Your task to perform on an android device: Go to sound settings Image 0: 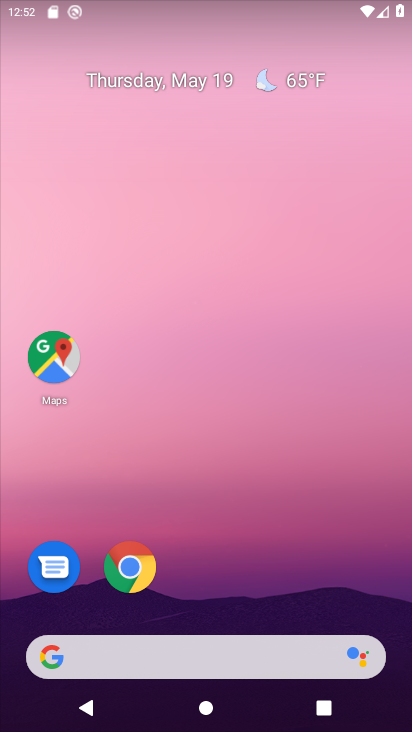
Step 0: drag from (280, 601) to (249, 202)
Your task to perform on an android device: Go to sound settings Image 1: 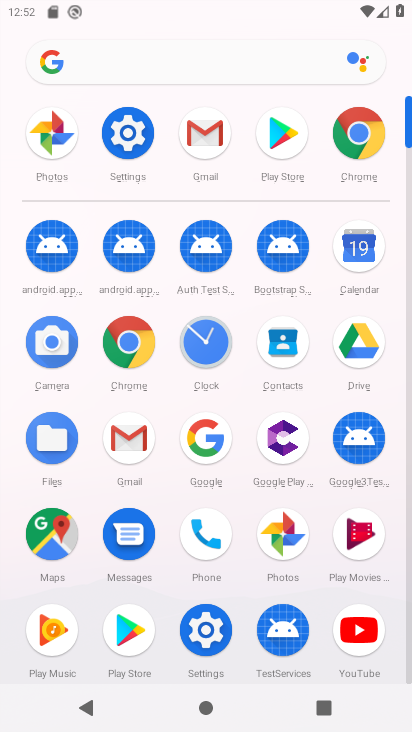
Step 1: click (133, 133)
Your task to perform on an android device: Go to sound settings Image 2: 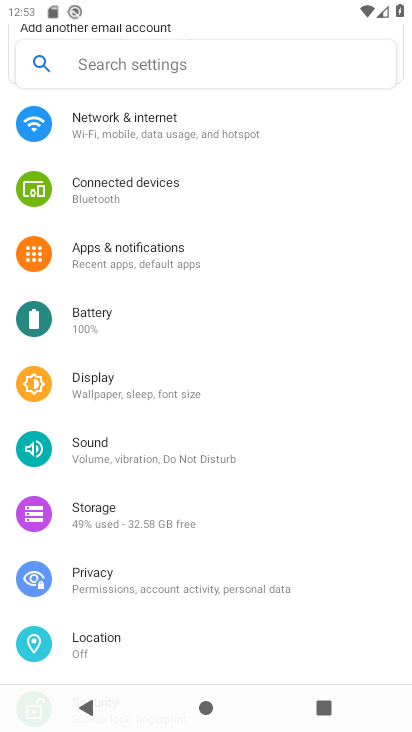
Step 2: click (196, 456)
Your task to perform on an android device: Go to sound settings Image 3: 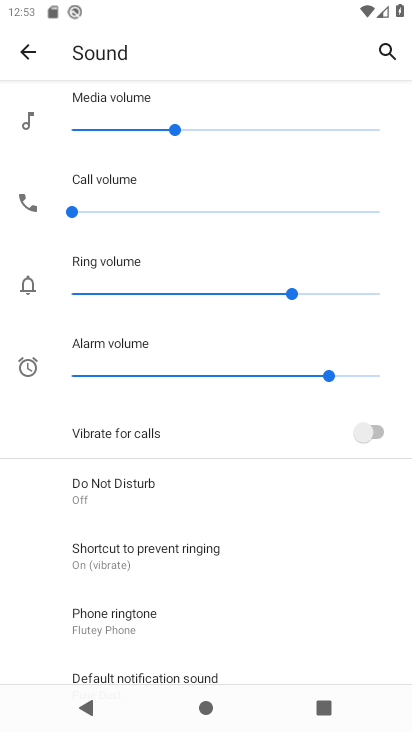
Step 3: task complete